Your task to perform on an android device: Check the weather Image 0: 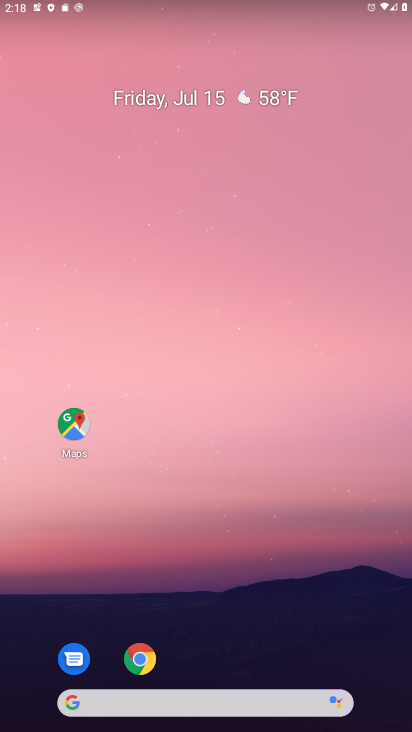
Step 0: click (245, 96)
Your task to perform on an android device: Check the weather Image 1: 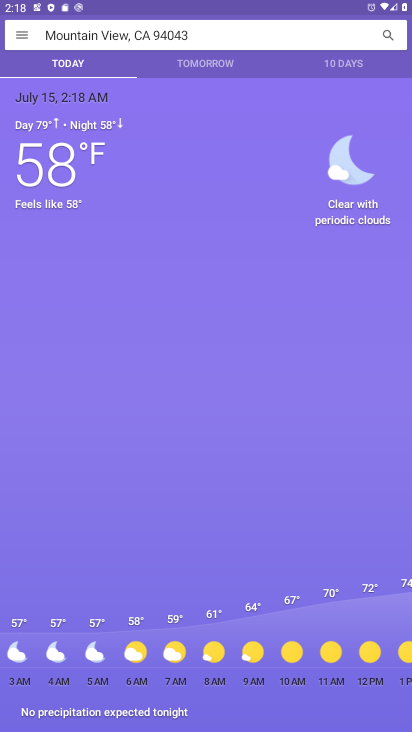
Step 1: task complete